Your task to perform on an android device: Open wifi settings Image 0: 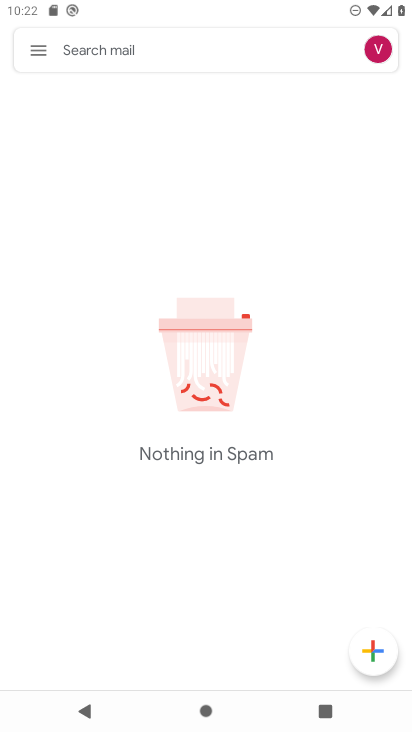
Step 0: press home button
Your task to perform on an android device: Open wifi settings Image 1: 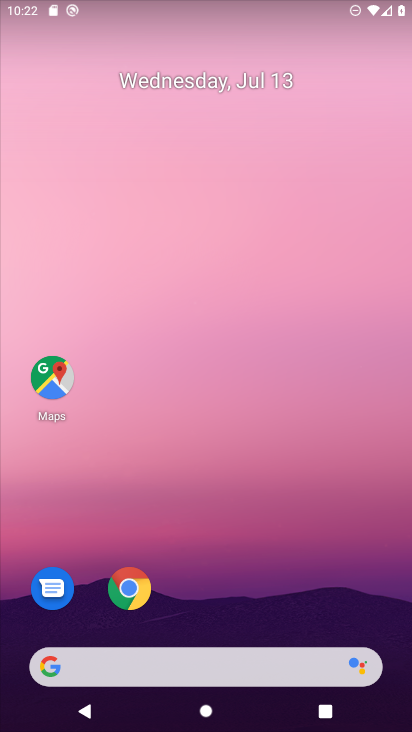
Step 1: drag from (197, 626) to (215, 98)
Your task to perform on an android device: Open wifi settings Image 2: 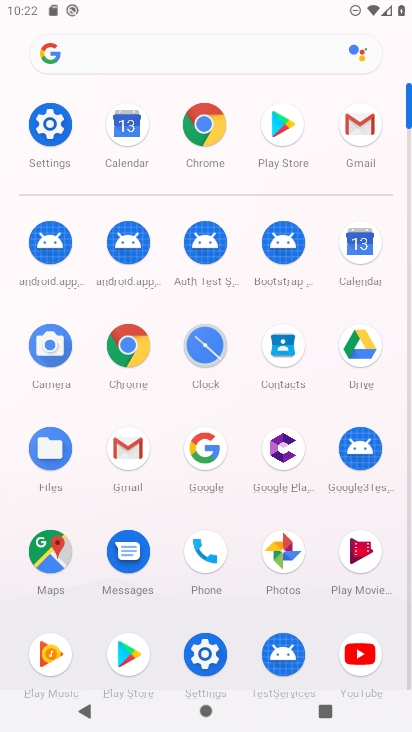
Step 2: click (35, 124)
Your task to perform on an android device: Open wifi settings Image 3: 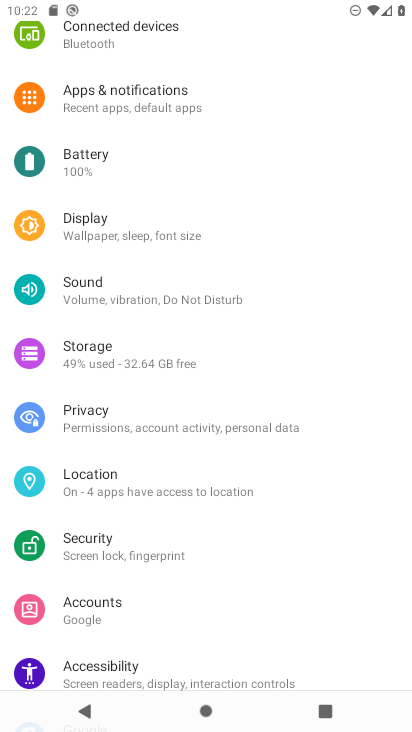
Step 3: drag from (130, 180) to (126, 588)
Your task to perform on an android device: Open wifi settings Image 4: 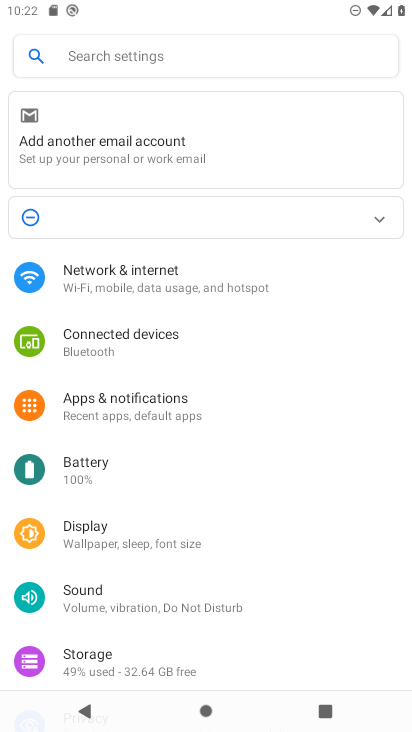
Step 4: click (116, 274)
Your task to perform on an android device: Open wifi settings Image 5: 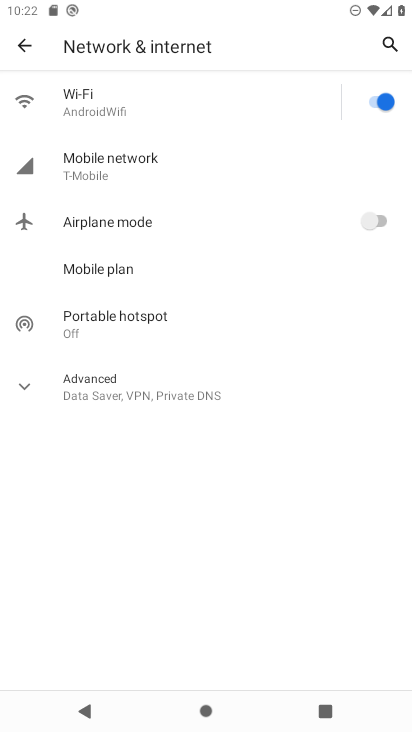
Step 5: click (83, 123)
Your task to perform on an android device: Open wifi settings Image 6: 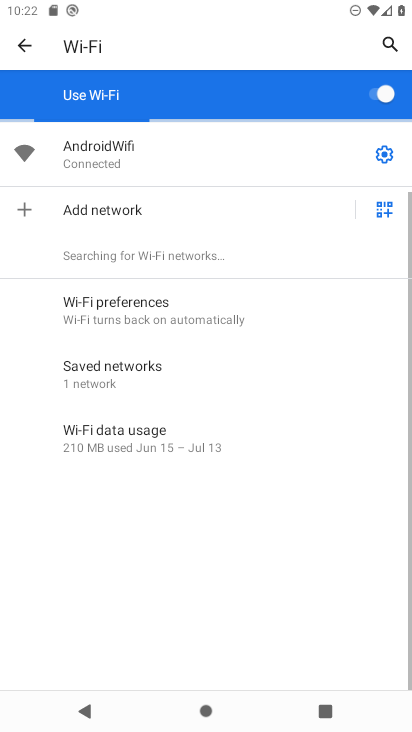
Step 6: task complete